Your task to perform on an android device: What is the recent news? Image 0: 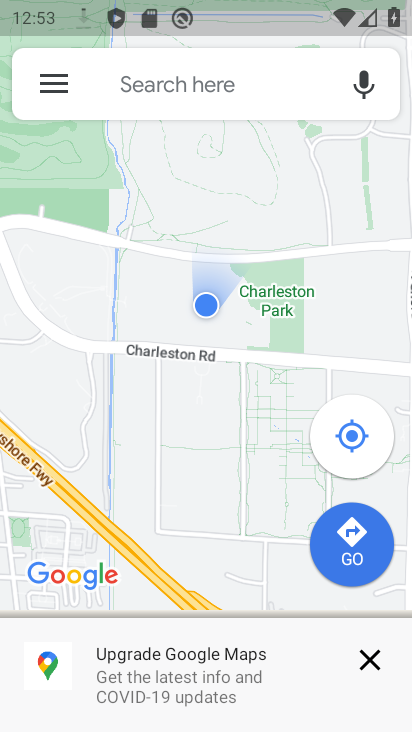
Step 0: press home button
Your task to perform on an android device: What is the recent news? Image 1: 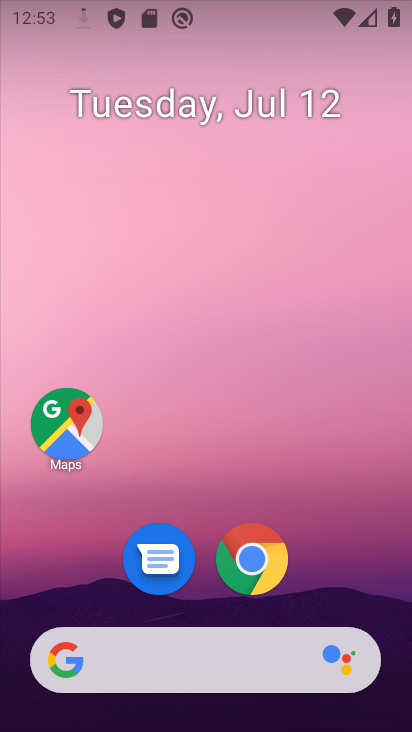
Step 1: task complete